Your task to perform on an android device: delete the emails in spam in the gmail app Image 0: 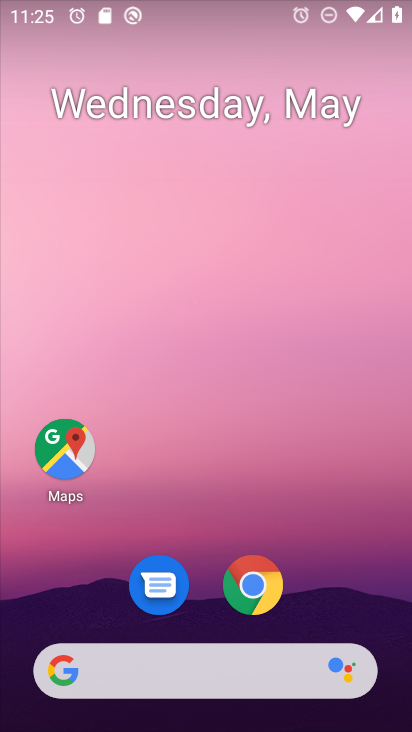
Step 0: drag from (357, 522) to (270, 91)
Your task to perform on an android device: delete the emails in spam in the gmail app Image 1: 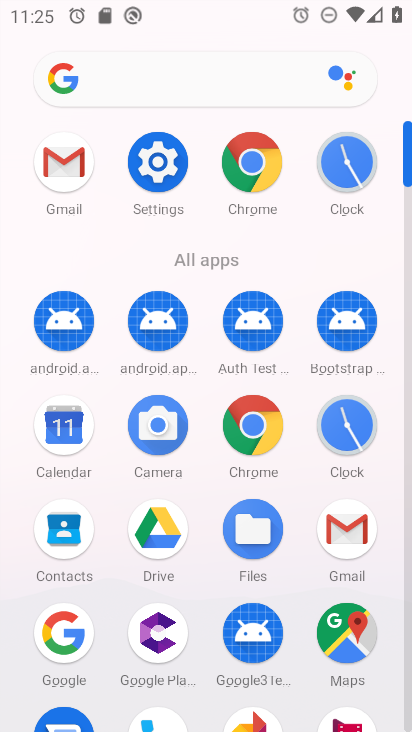
Step 1: click (52, 146)
Your task to perform on an android device: delete the emails in spam in the gmail app Image 2: 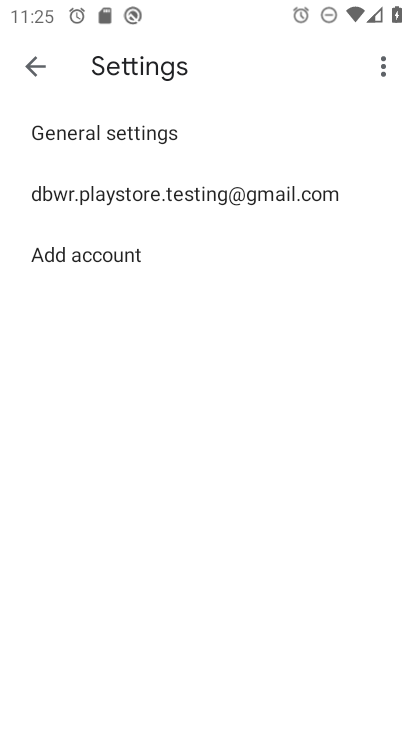
Step 2: click (38, 58)
Your task to perform on an android device: delete the emails in spam in the gmail app Image 3: 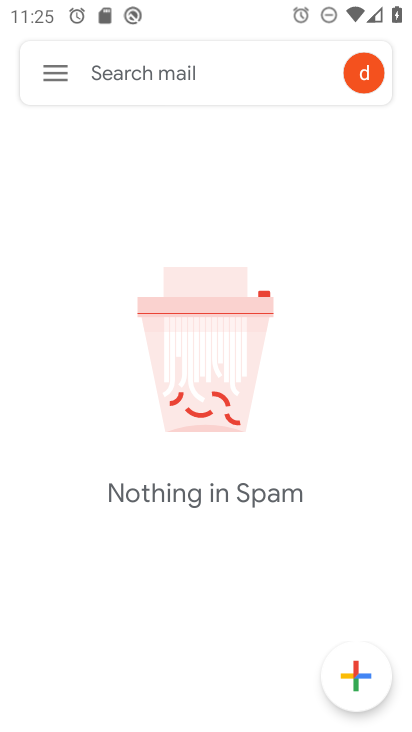
Step 3: task complete